Your task to perform on an android device: Open internet settings Image 0: 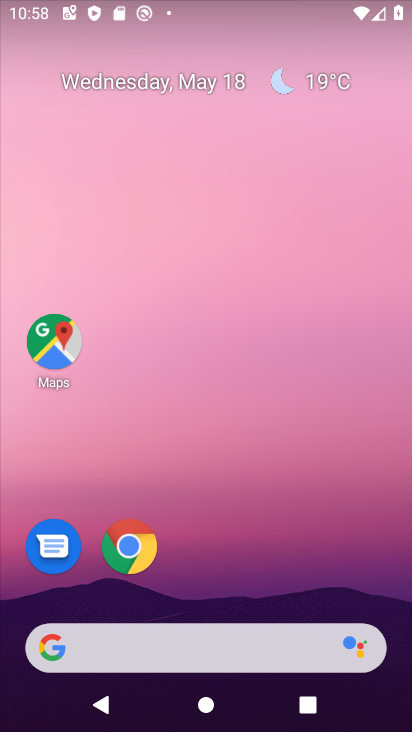
Step 0: drag from (224, 683) to (235, 101)
Your task to perform on an android device: Open internet settings Image 1: 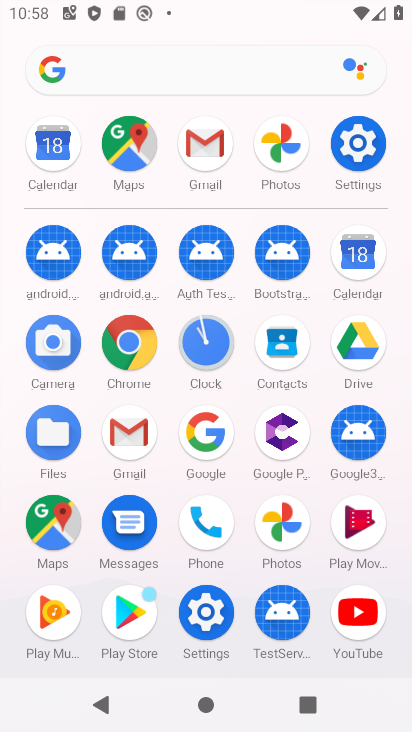
Step 1: click (350, 149)
Your task to perform on an android device: Open internet settings Image 2: 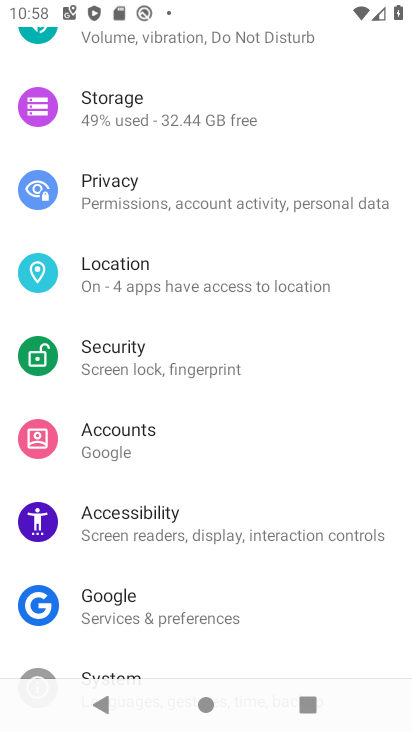
Step 2: drag from (196, 127) to (209, 606)
Your task to perform on an android device: Open internet settings Image 3: 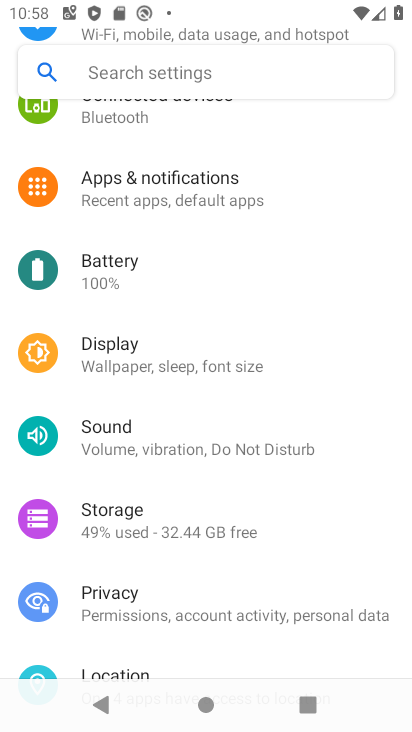
Step 3: drag from (207, 147) to (206, 634)
Your task to perform on an android device: Open internet settings Image 4: 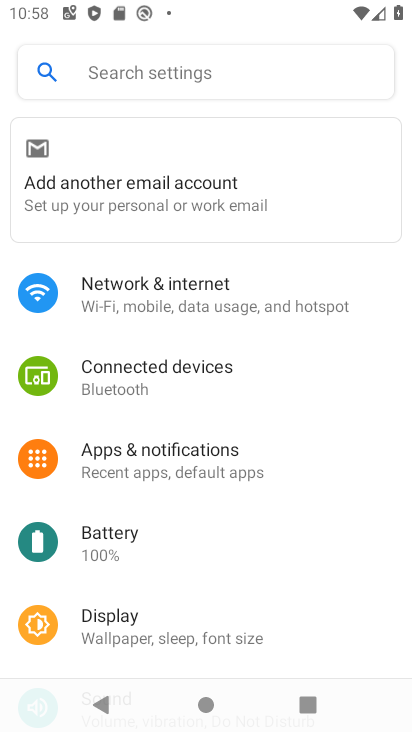
Step 4: click (175, 311)
Your task to perform on an android device: Open internet settings Image 5: 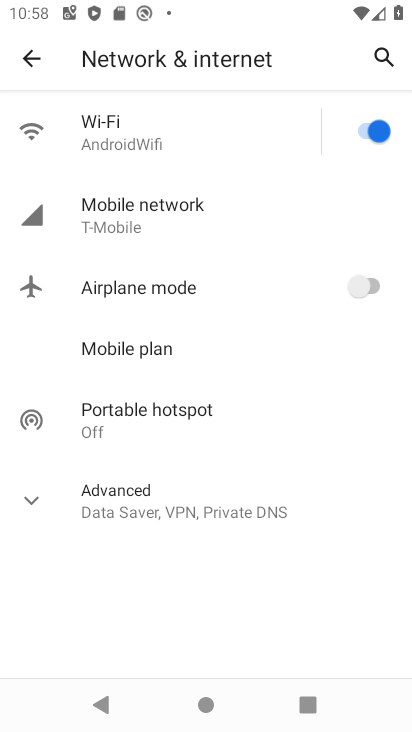
Step 5: task complete